Your task to perform on an android device: Search for pizza restaurants on Maps Image 0: 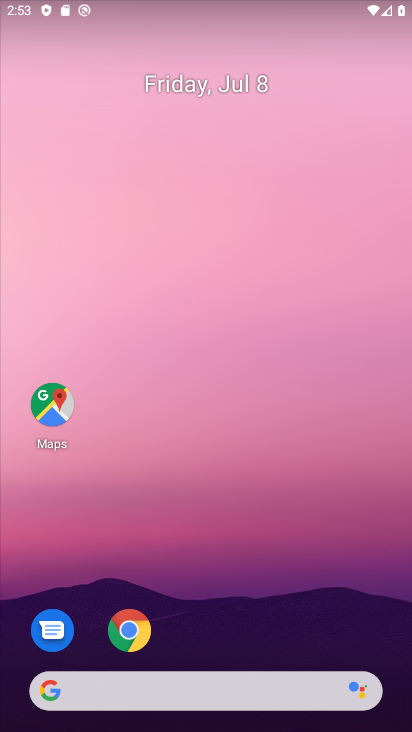
Step 0: click (38, 399)
Your task to perform on an android device: Search for pizza restaurants on Maps Image 1: 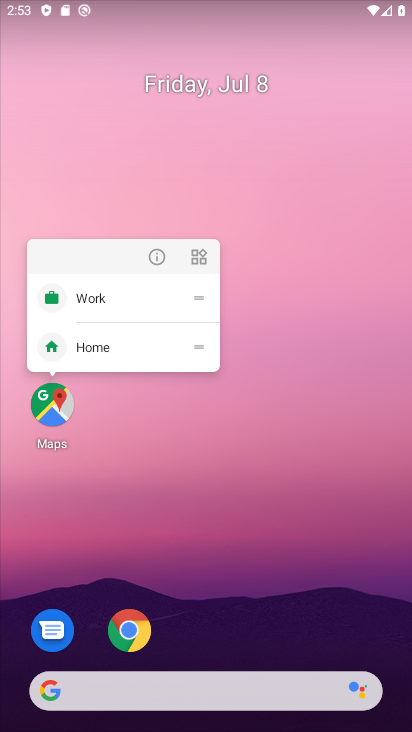
Step 1: click (38, 399)
Your task to perform on an android device: Search for pizza restaurants on Maps Image 2: 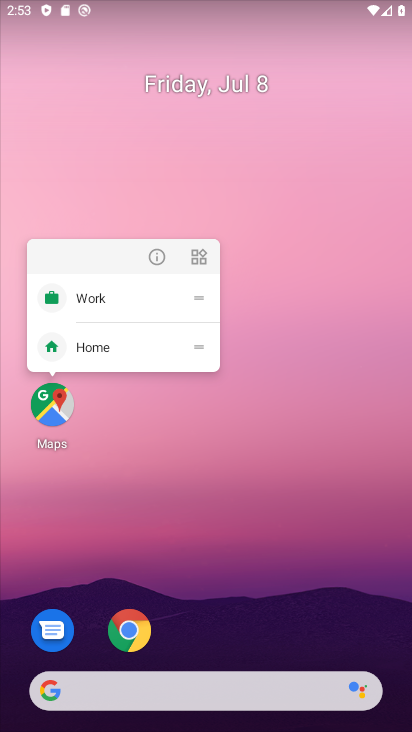
Step 2: click (64, 410)
Your task to perform on an android device: Search for pizza restaurants on Maps Image 3: 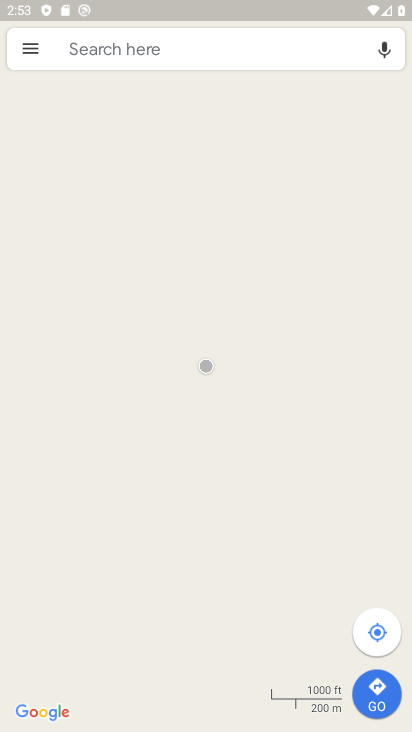
Step 3: click (255, 49)
Your task to perform on an android device: Search for pizza restaurants on Maps Image 4: 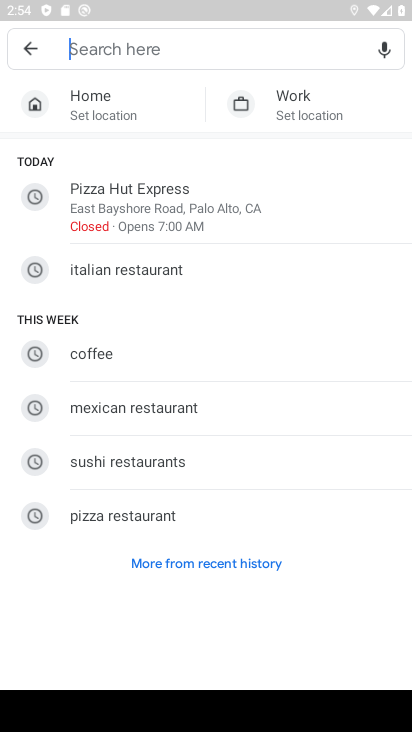
Step 4: type "pizza restaurant"
Your task to perform on an android device: Search for pizza restaurants on Maps Image 5: 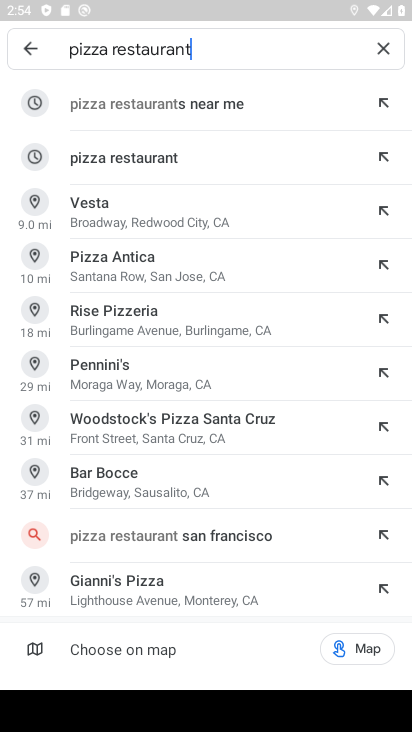
Step 5: click (113, 157)
Your task to perform on an android device: Search for pizza restaurants on Maps Image 6: 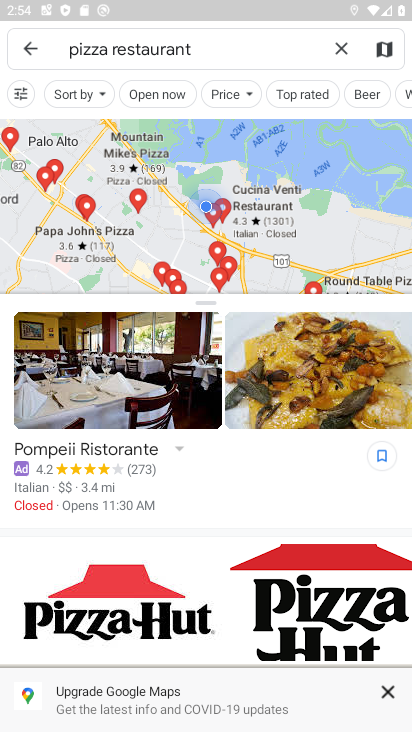
Step 6: task complete